Your task to perform on an android device: toggle priority inbox in the gmail app Image 0: 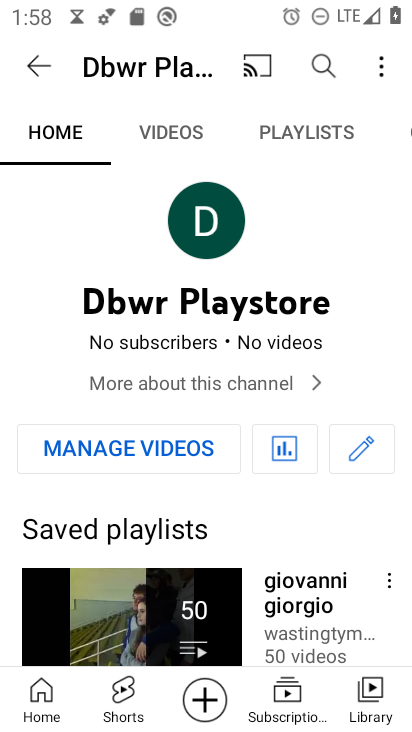
Step 0: press home button
Your task to perform on an android device: toggle priority inbox in the gmail app Image 1: 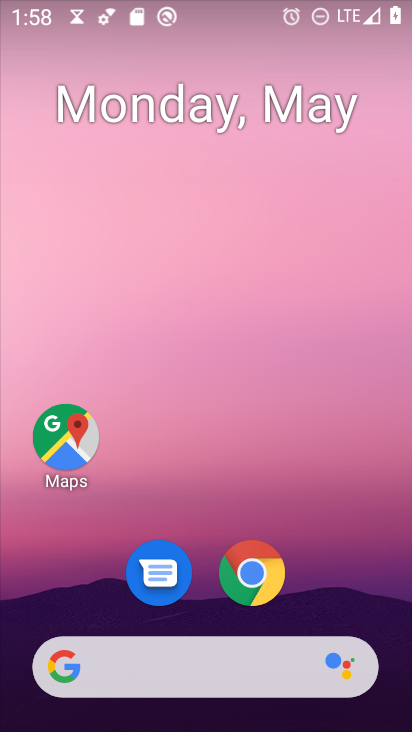
Step 1: drag from (275, 636) to (271, 0)
Your task to perform on an android device: toggle priority inbox in the gmail app Image 2: 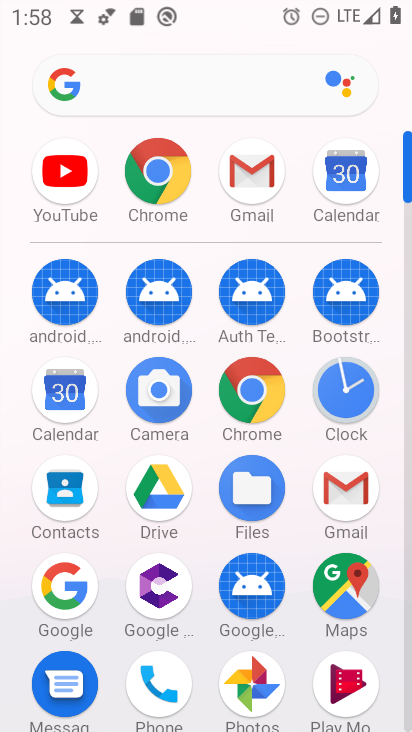
Step 2: click (329, 497)
Your task to perform on an android device: toggle priority inbox in the gmail app Image 3: 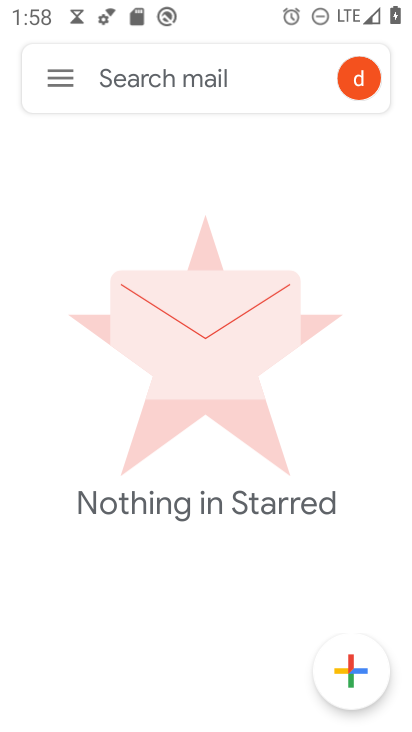
Step 3: click (56, 79)
Your task to perform on an android device: toggle priority inbox in the gmail app Image 4: 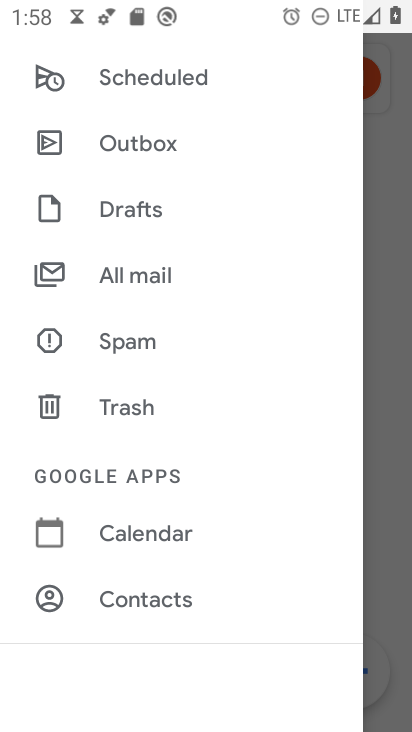
Step 4: drag from (185, 537) to (231, 102)
Your task to perform on an android device: toggle priority inbox in the gmail app Image 5: 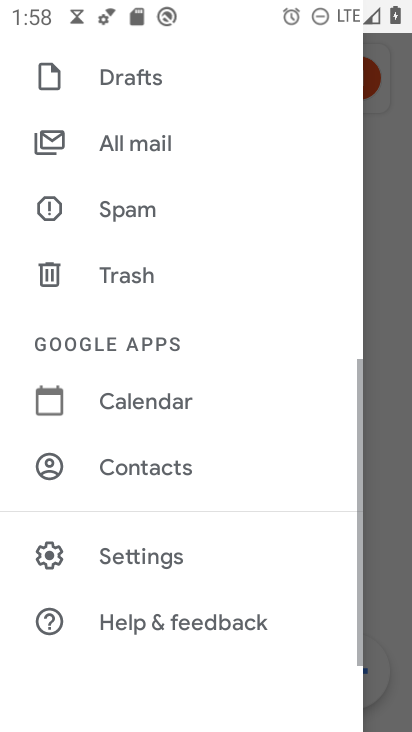
Step 5: click (149, 561)
Your task to perform on an android device: toggle priority inbox in the gmail app Image 6: 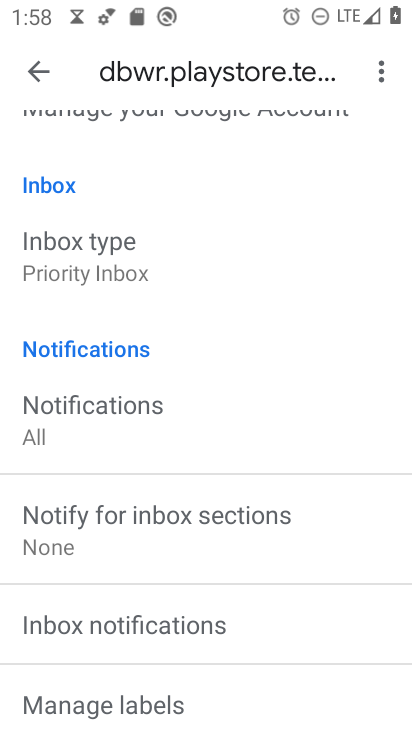
Step 6: click (144, 258)
Your task to perform on an android device: toggle priority inbox in the gmail app Image 7: 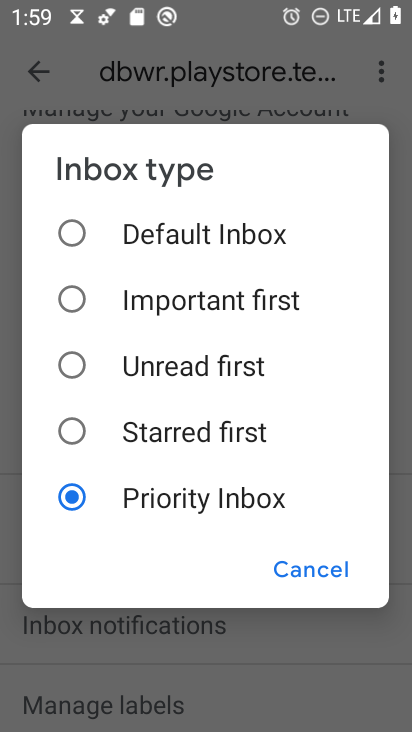
Step 7: click (75, 232)
Your task to perform on an android device: toggle priority inbox in the gmail app Image 8: 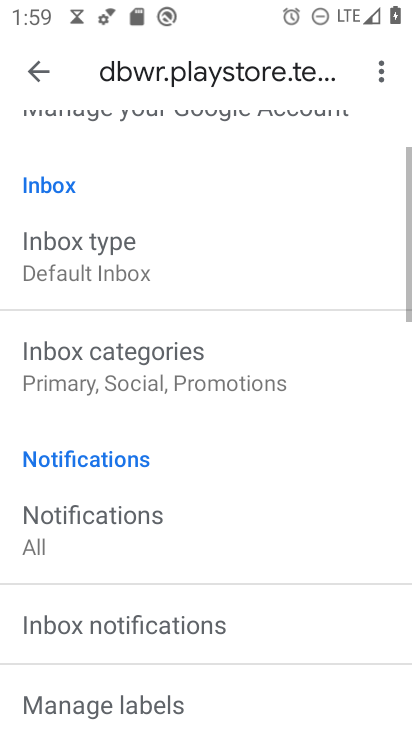
Step 8: task complete